Your task to perform on an android device: open chrome and create a bookmark for the current page Image 0: 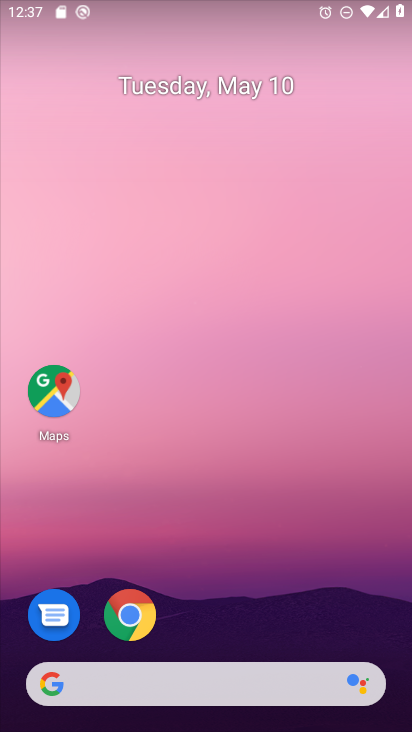
Step 0: drag from (221, 702) to (211, 116)
Your task to perform on an android device: open chrome and create a bookmark for the current page Image 1: 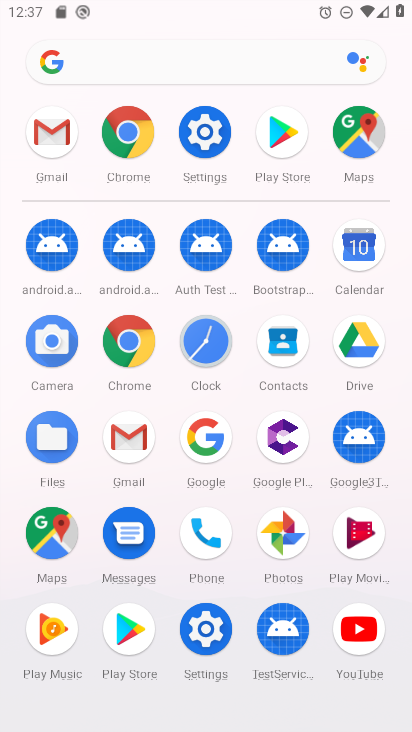
Step 1: click (128, 140)
Your task to perform on an android device: open chrome and create a bookmark for the current page Image 2: 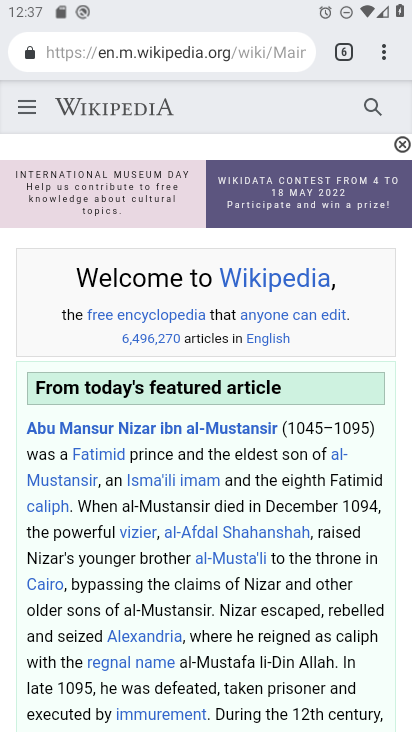
Step 2: click (384, 60)
Your task to perform on an android device: open chrome and create a bookmark for the current page Image 3: 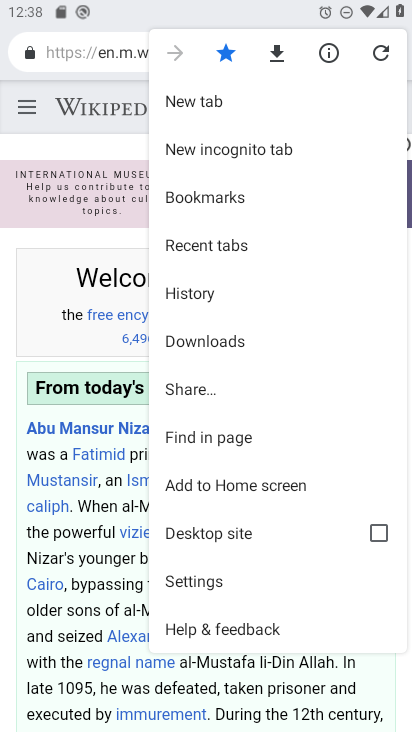
Step 3: click (230, 200)
Your task to perform on an android device: open chrome and create a bookmark for the current page Image 4: 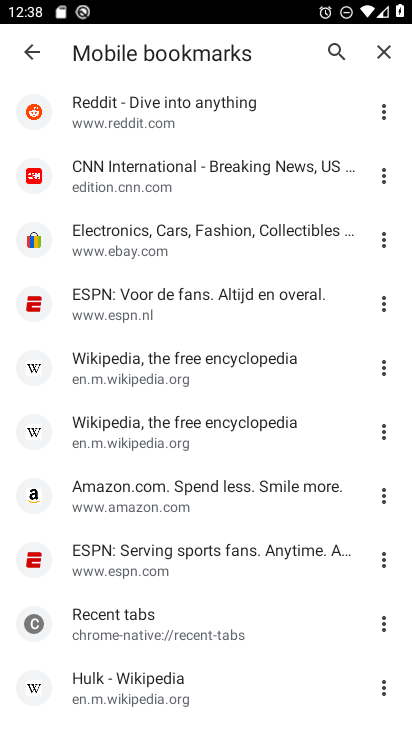
Step 4: task complete